Your task to perform on an android device: refresh tabs in the chrome app Image 0: 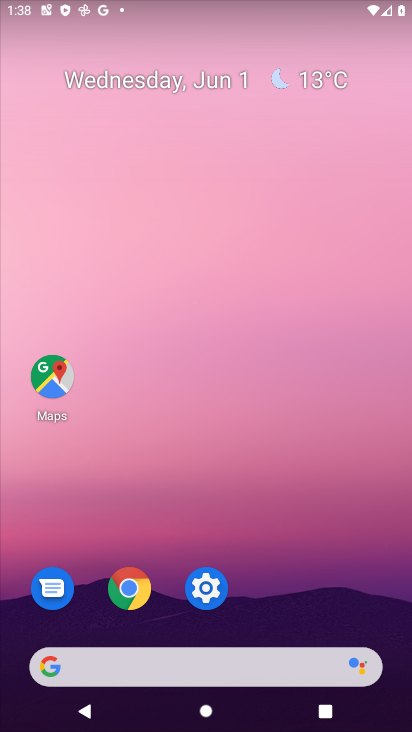
Step 0: press home button
Your task to perform on an android device: refresh tabs in the chrome app Image 1: 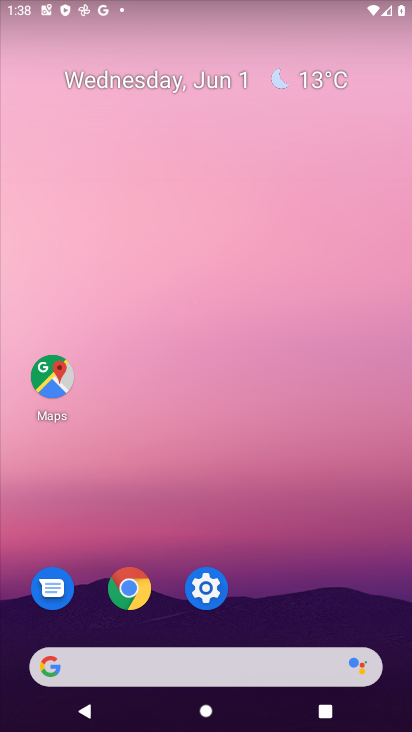
Step 1: click (128, 583)
Your task to perform on an android device: refresh tabs in the chrome app Image 2: 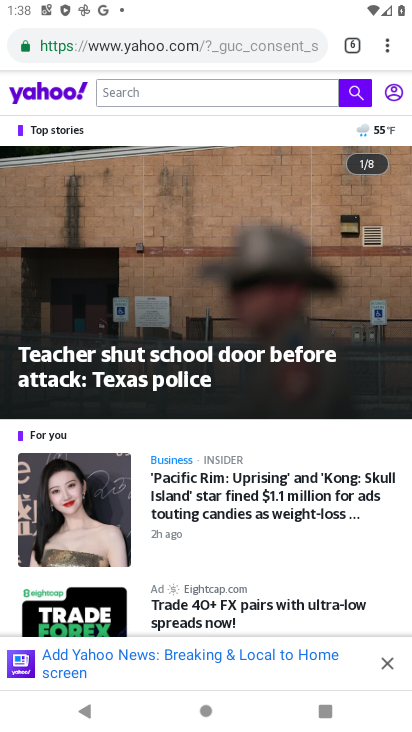
Step 2: click (383, 58)
Your task to perform on an android device: refresh tabs in the chrome app Image 3: 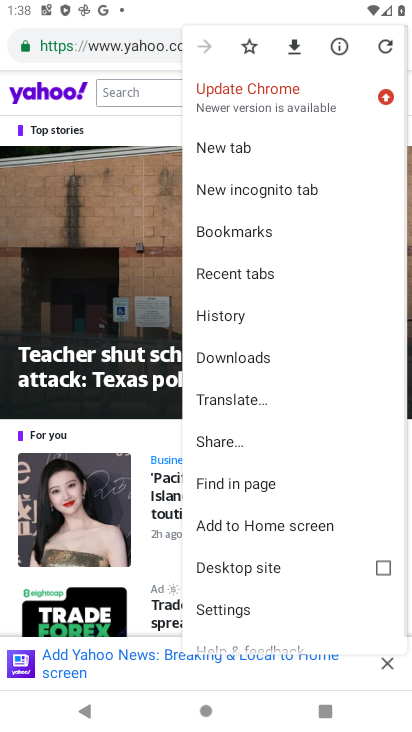
Step 3: click (384, 46)
Your task to perform on an android device: refresh tabs in the chrome app Image 4: 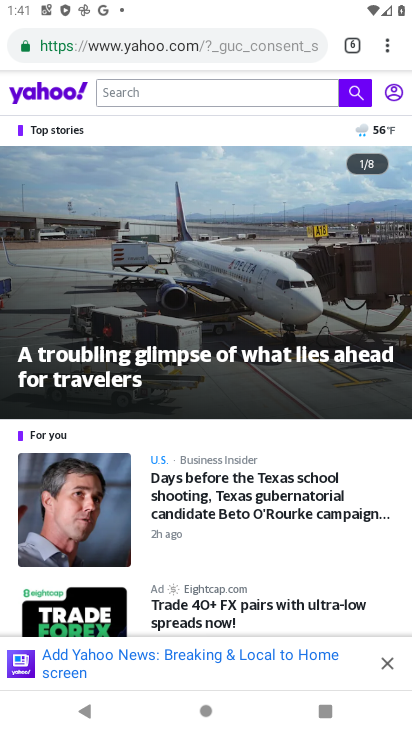
Step 4: task complete